Your task to perform on an android device: show emergency info Image 0: 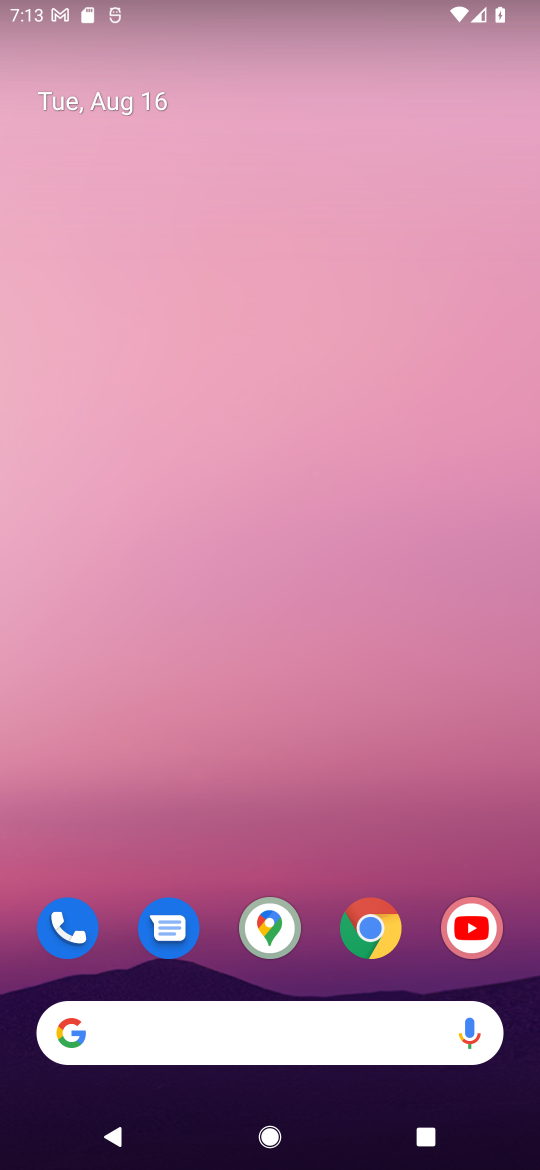
Step 0: drag from (310, 1026) to (404, 127)
Your task to perform on an android device: show emergency info Image 1: 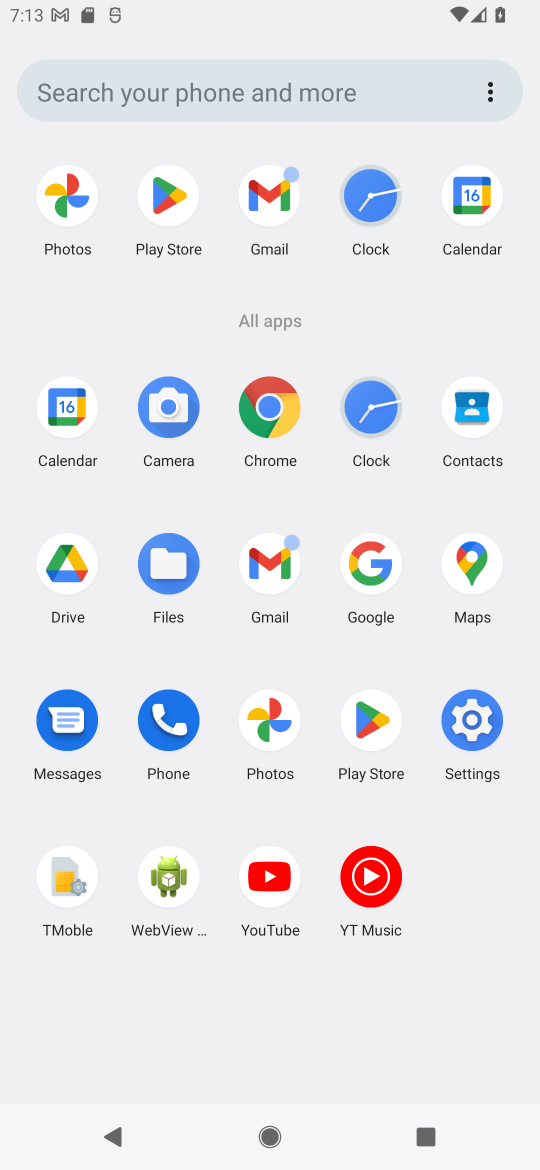
Step 1: click (456, 745)
Your task to perform on an android device: show emergency info Image 2: 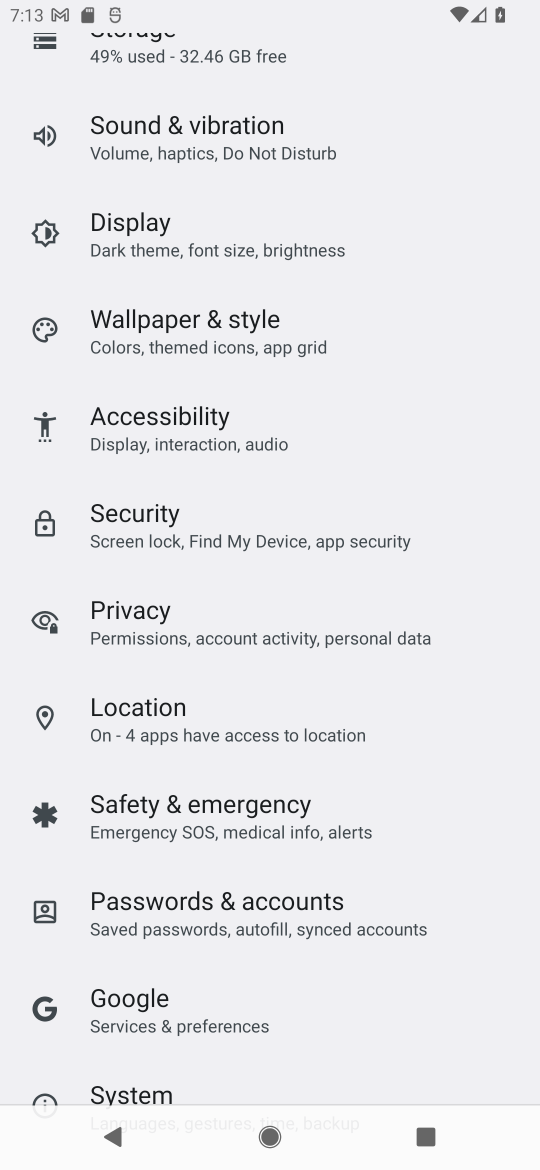
Step 2: click (191, 838)
Your task to perform on an android device: show emergency info Image 3: 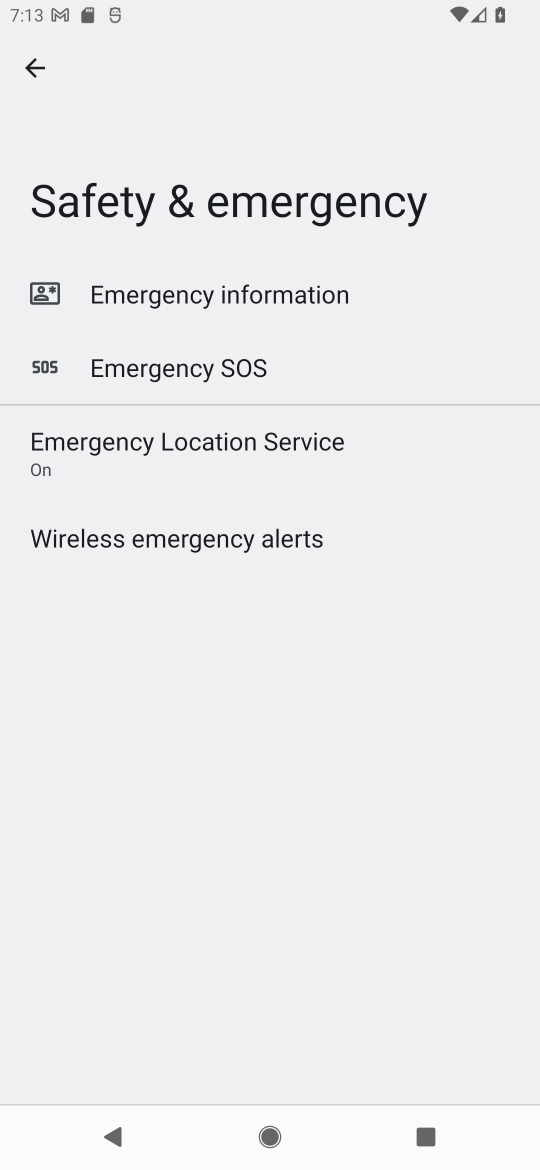
Step 3: click (206, 290)
Your task to perform on an android device: show emergency info Image 4: 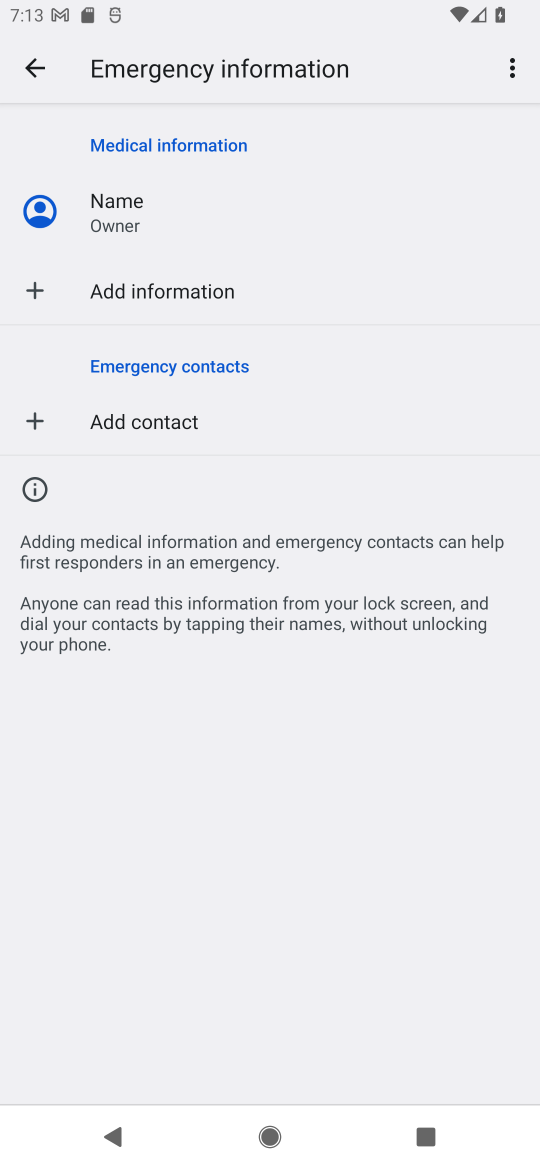
Step 4: task complete